Your task to perform on an android device: search for starred emails in the gmail app Image 0: 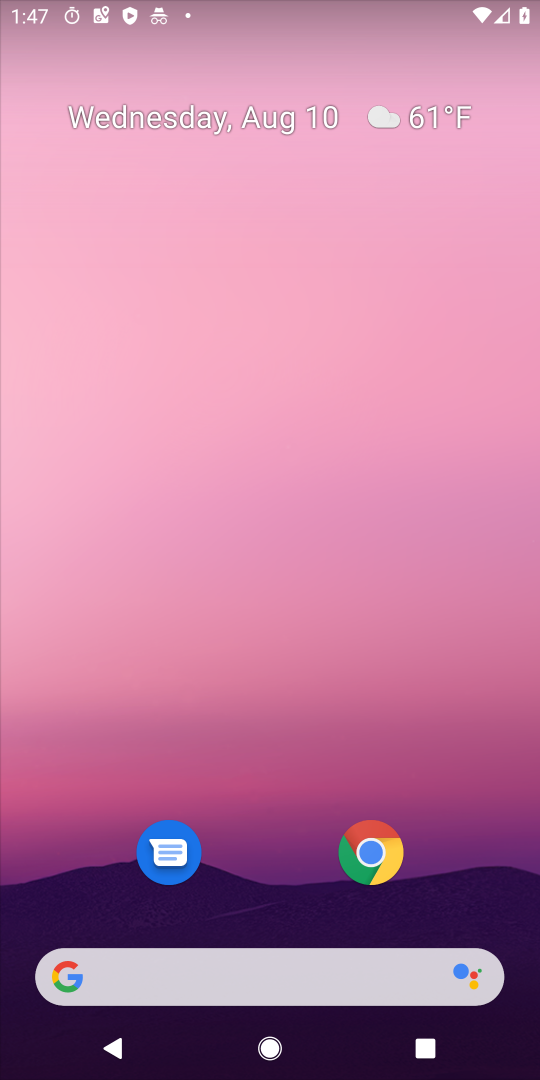
Step 0: drag from (225, 560) to (223, 21)
Your task to perform on an android device: search for starred emails in the gmail app Image 1: 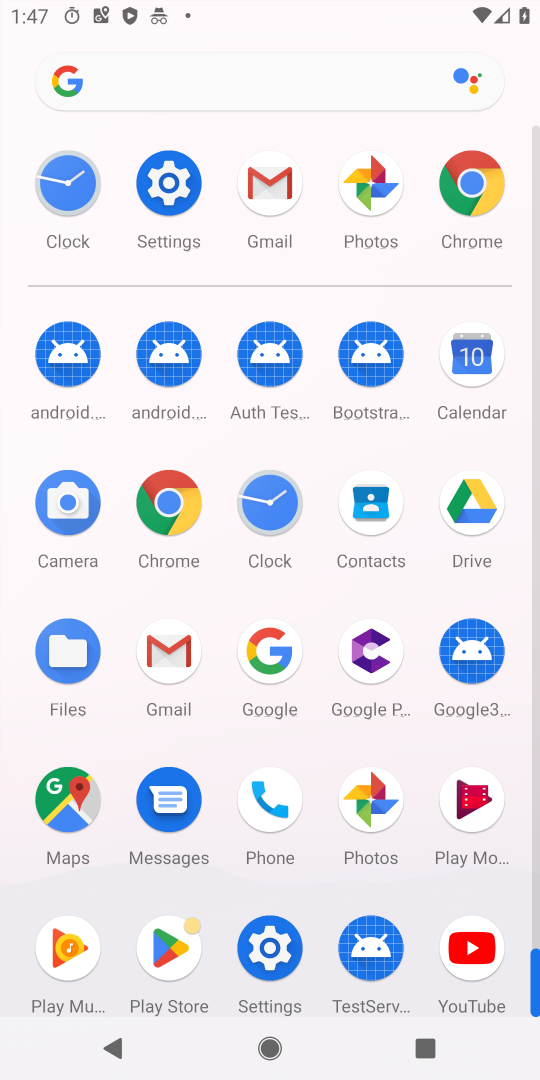
Step 1: click (173, 641)
Your task to perform on an android device: search for starred emails in the gmail app Image 2: 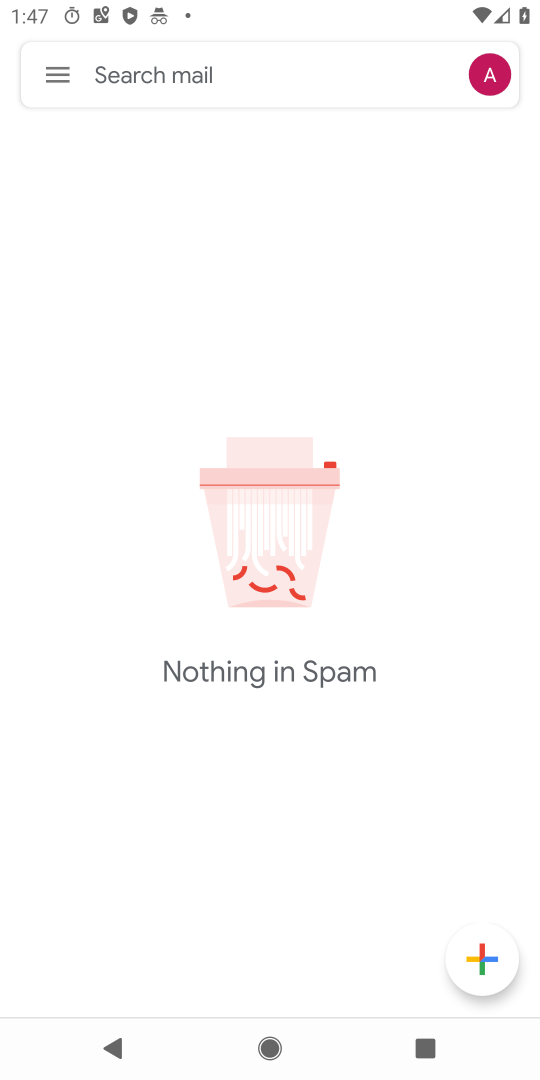
Step 2: click (57, 61)
Your task to perform on an android device: search for starred emails in the gmail app Image 3: 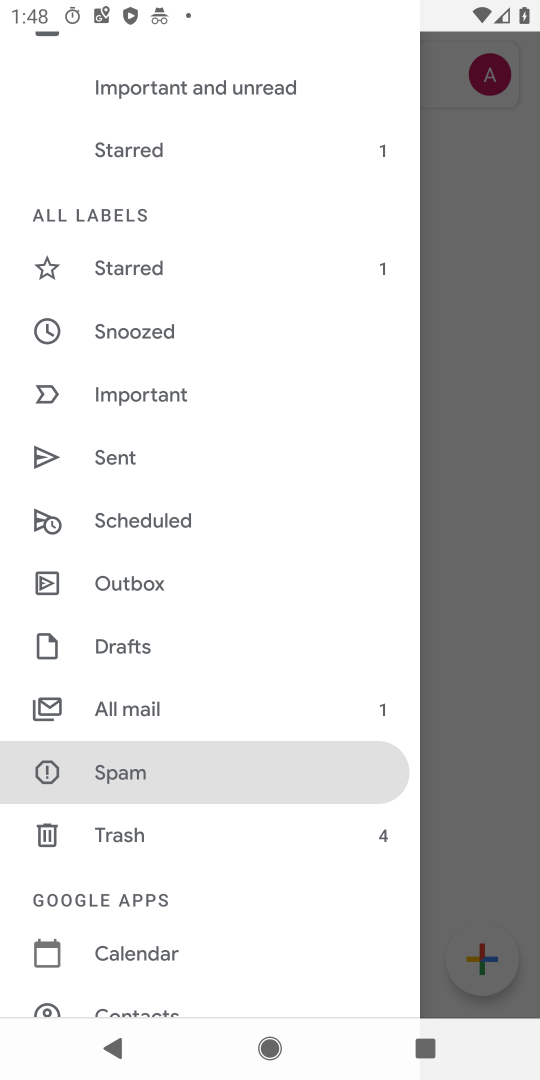
Step 3: click (143, 270)
Your task to perform on an android device: search for starred emails in the gmail app Image 4: 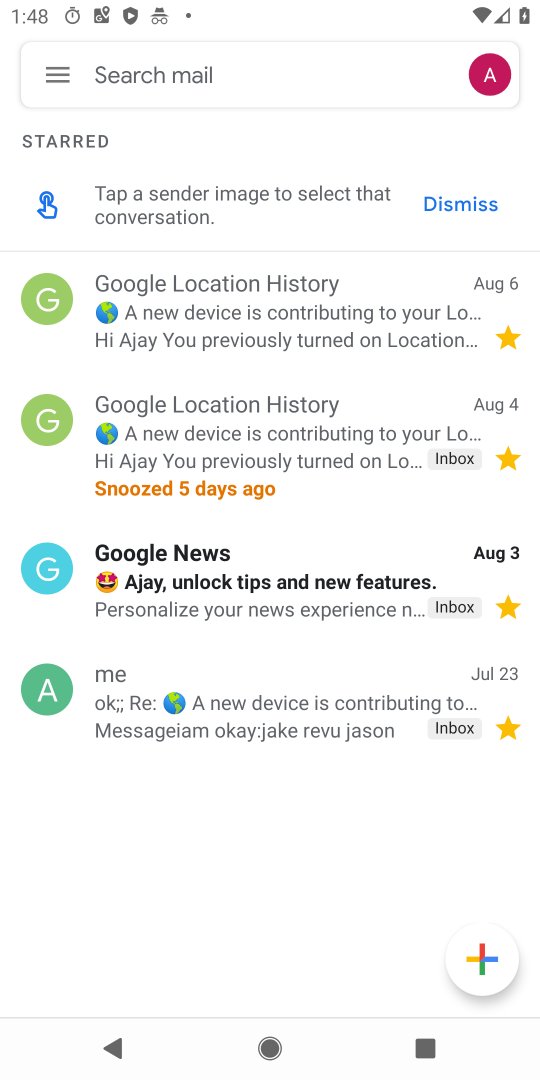
Step 4: task complete